Your task to perform on an android device: change notification settings in the gmail app Image 0: 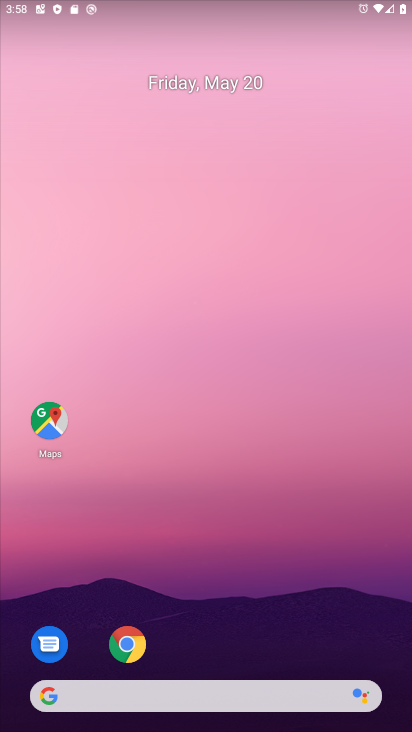
Step 0: drag from (285, 663) to (345, 55)
Your task to perform on an android device: change notification settings in the gmail app Image 1: 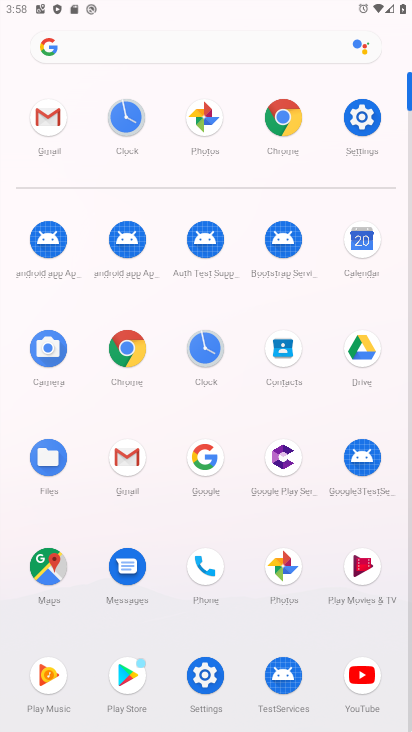
Step 1: click (39, 118)
Your task to perform on an android device: change notification settings in the gmail app Image 2: 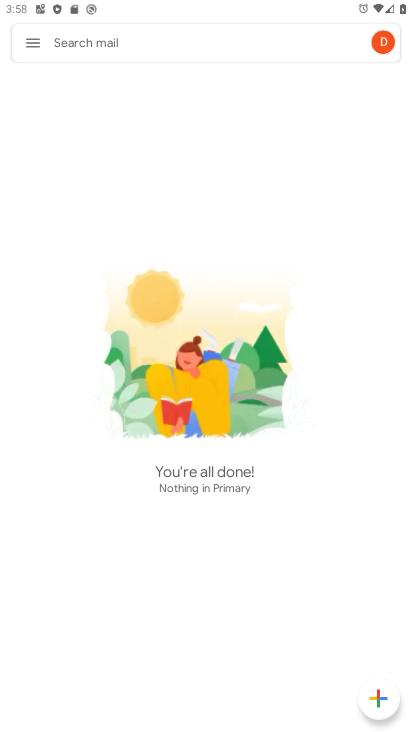
Step 2: click (38, 48)
Your task to perform on an android device: change notification settings in the gmail app Image 3: 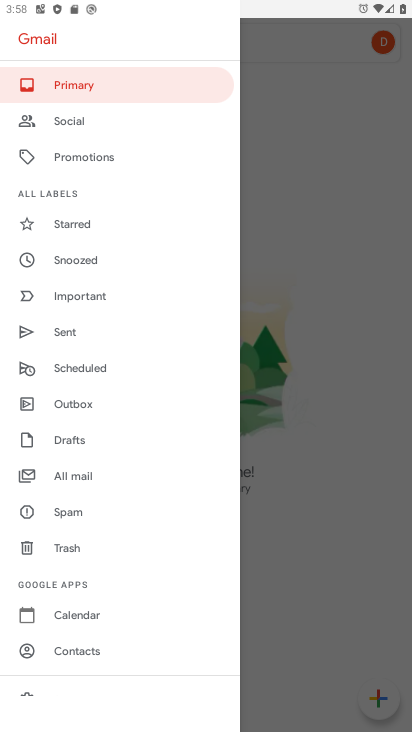
Step 3: drag from (84, 651) to (117, 389)
Your task to perform on an android device: change notification settings in the gmail app Image 4: 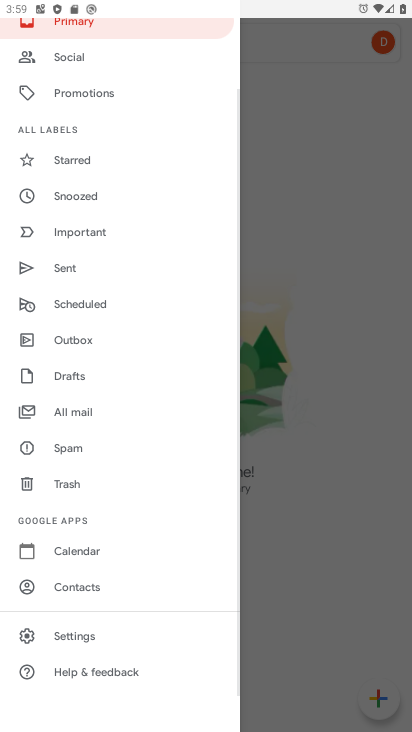
Step 4: click (107, 642)
Your task to perform on an android device: change notification settings in the gmail app Image 5: 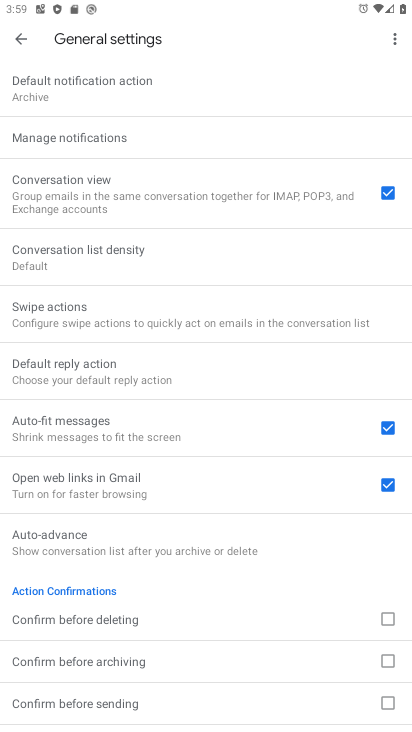
Step 5: click (187, 133)
Your task to perform on an android device: change notification settings in the gmail app Image 6: 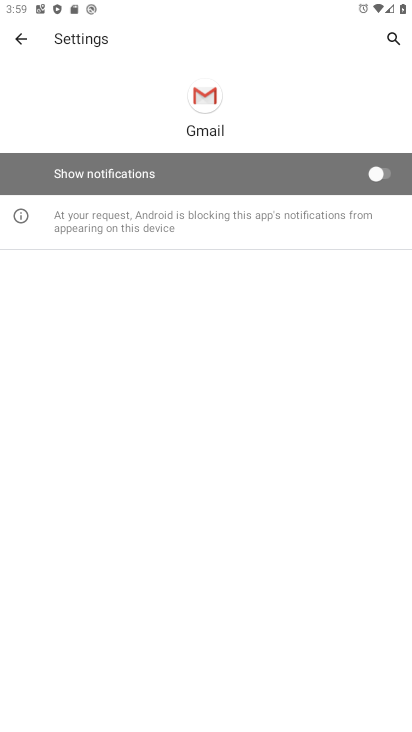
Step 6: click (321, 185)
Your task to perform on an android device: change notification settings in the gmail app Image 7: 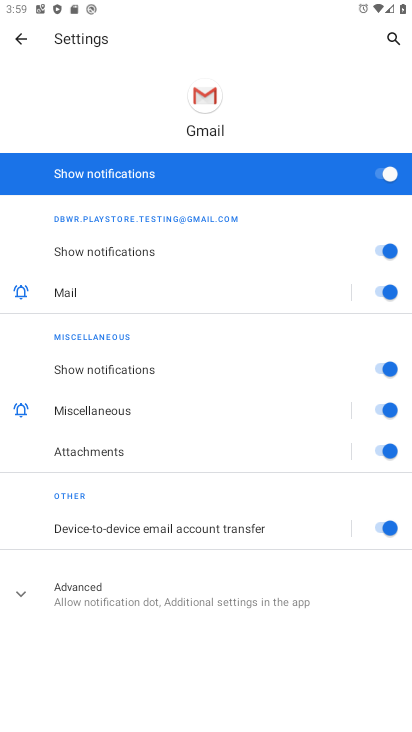
Step 7: task complete